Your task to perform on an android device: change timer sound Image 0: 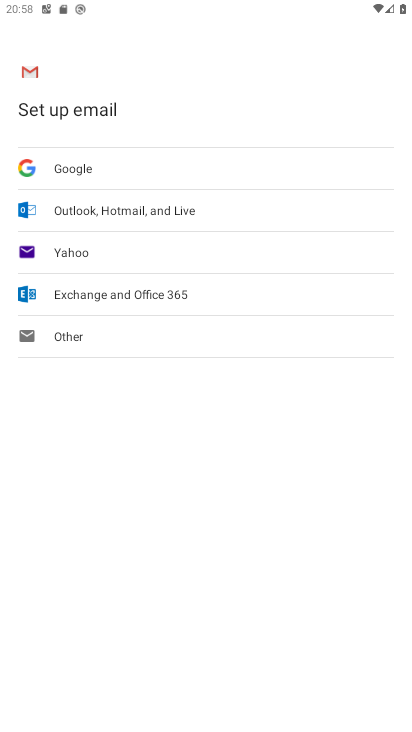
Step 0: press home button
Your task to perform on an android device: change timer sound Image 1: 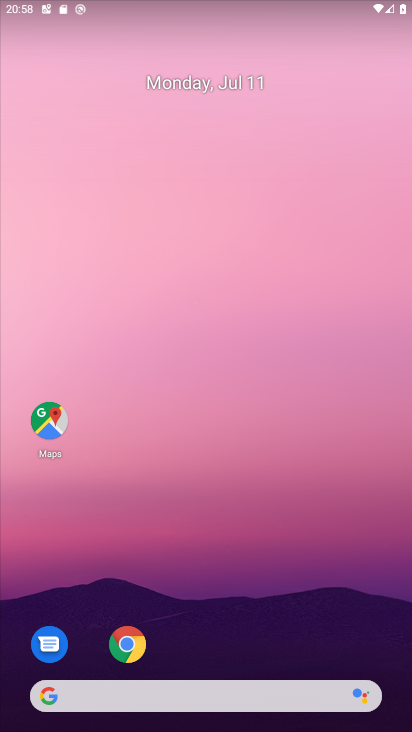
Step 1: drag from (218, 627) to (229, 59)
Your task to perform on an android device: change timer sound Image 2: 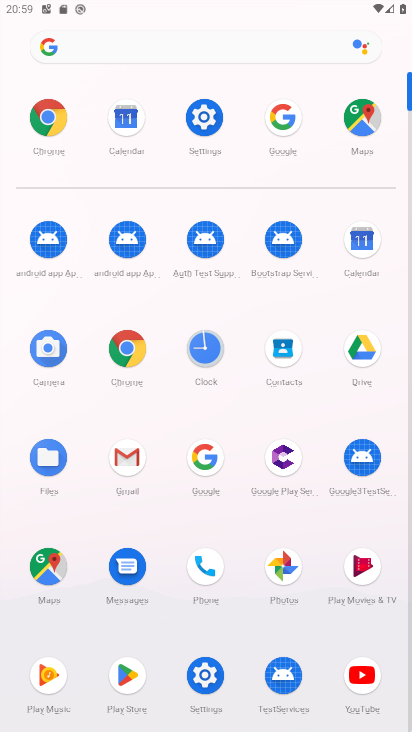
Step 2: click (216, 348)
Your task to perform on an android device: change timer sound Image 3: 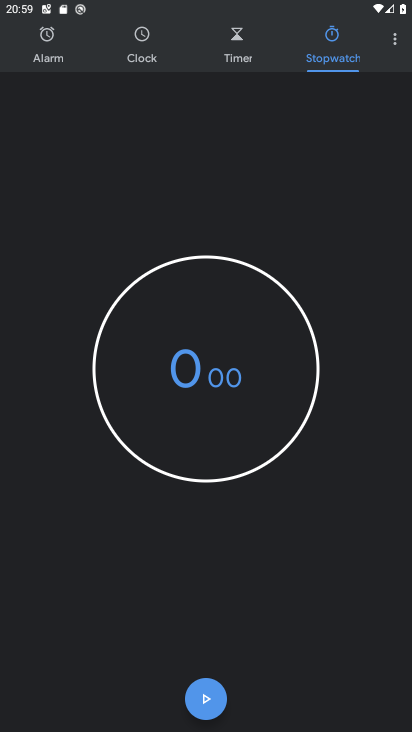
Step 3: click (392, 37)
Your task to perform on an android device: change timer sound Image 4: 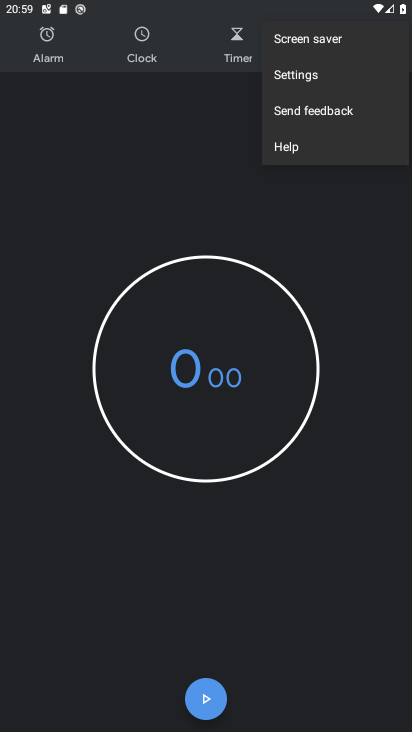
Step 4: click (280, 72)
Your task to perform on an android device: change timer sound Image 5: 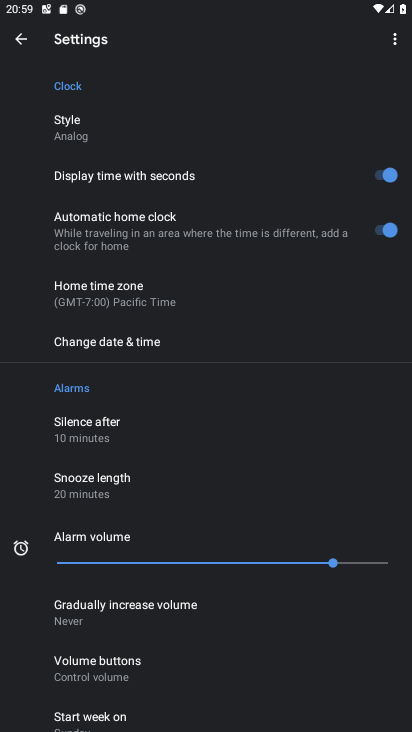
Step 5: drag from (185, 578) to (241, 292)
Your task to perform on an android device: change timer sound Image 6: 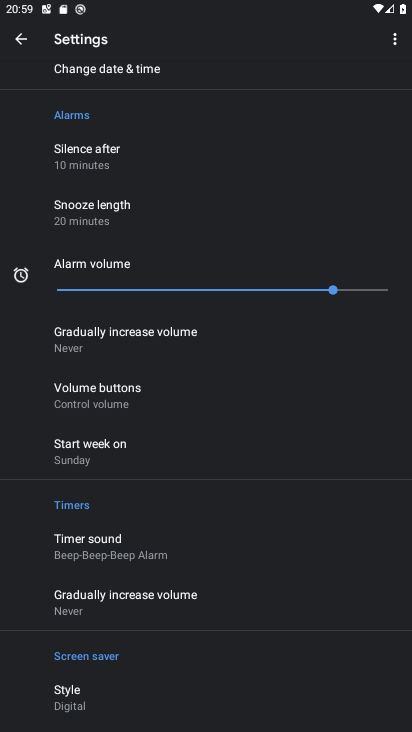
Step 6: drag from (227, 585) to (242, 92)
Your task to perform on an android device: change timer sound Image 7: 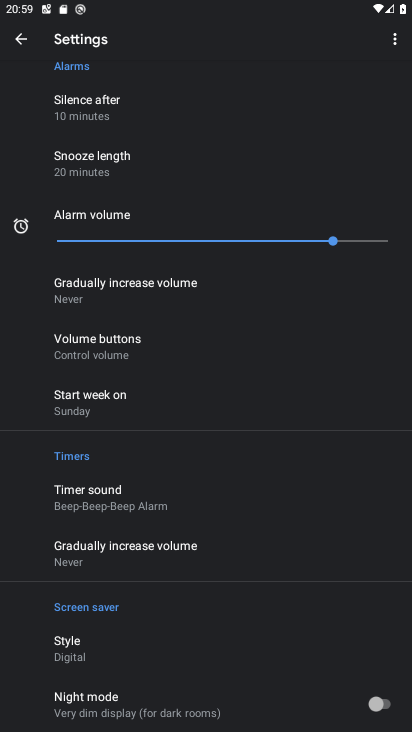
Step 7: click (117, 483)
Your task to perform on an android device: change timer sound Image 8: 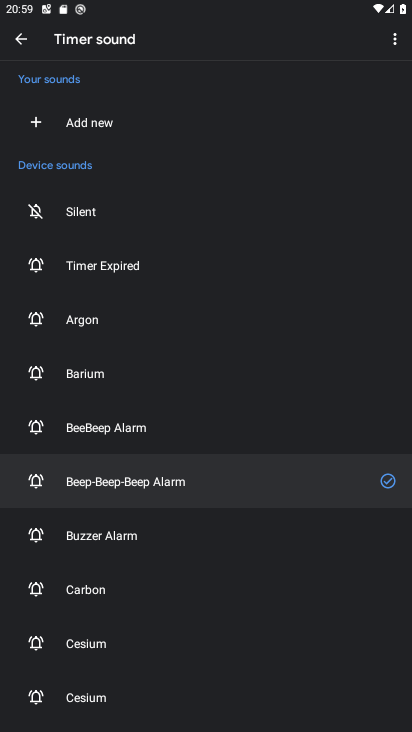
Step 8: click (91, 321)
Your task to perform on an android device: change timer sound Image 9: 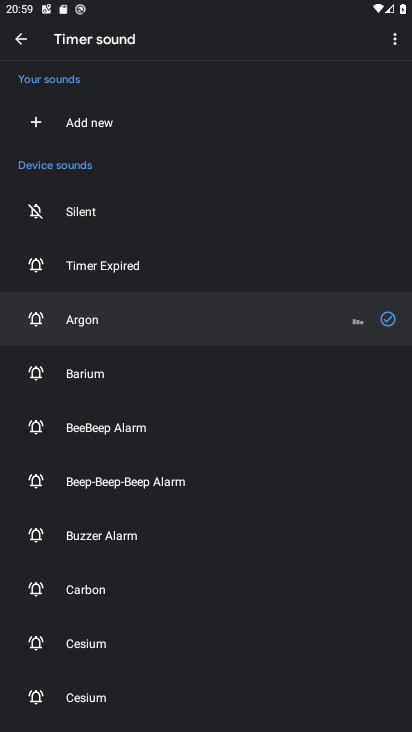
Step 9: task complete